Your task to perform on an android device: Do I have any events this weekend? Image 0: 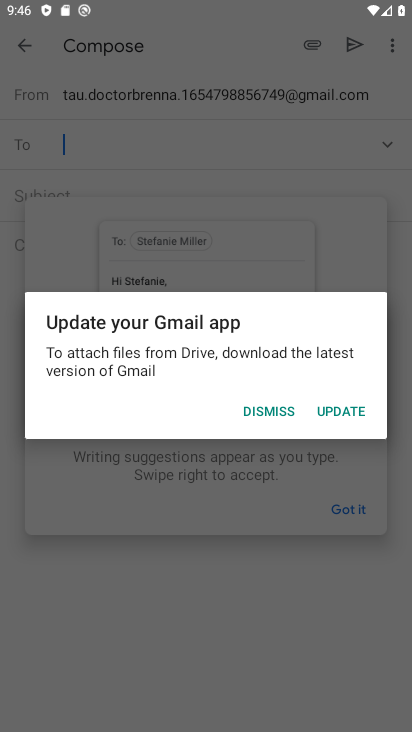
Step 0: press home button
Your task to perform on an android device: Do I have any events this weekend? Image 1: 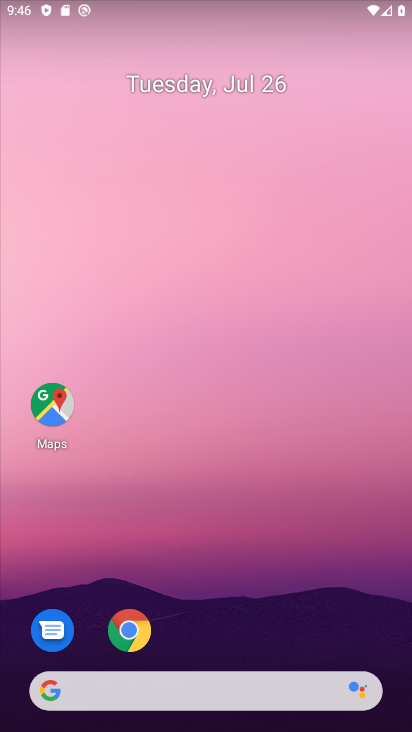
Step 1: drag from (333, 620) to (302, 46)
Your task to perform on an android device: Do I have any events this weekend? Image 2: 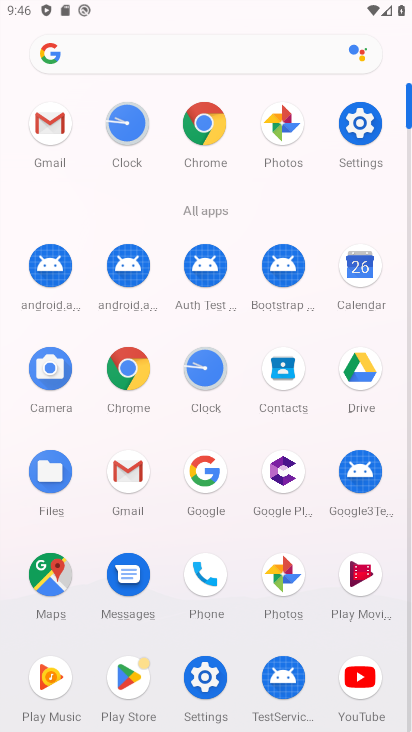
Step 2: click (361, 264)
Your task to perform on an android device: Do I have any events this weekend? Image 3: 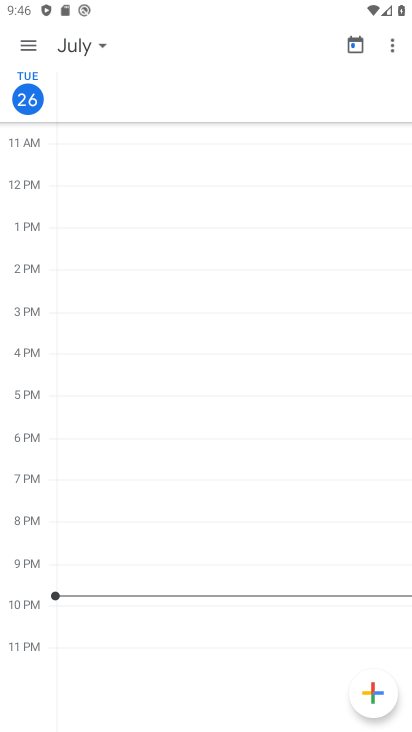
Step 3: click (24, 37)
Your task to perform on an android device: Do I have any events this weekend? Image 4: 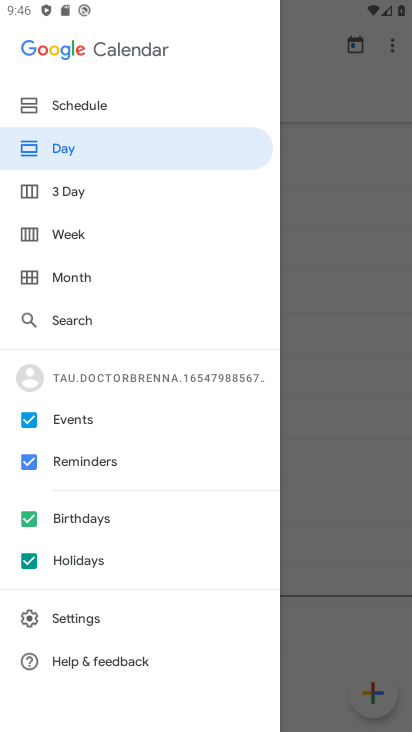
Step 4: click (76, 237)
Your task to perform on an android device: Do I have any events this weekend? Image 5: 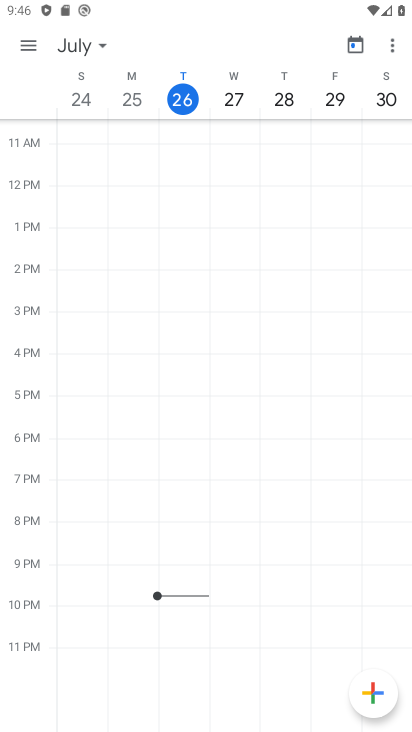
Step 5: task complete